Your task to perform on an android device: see tabs open on other devices in the chrome app Image 0: 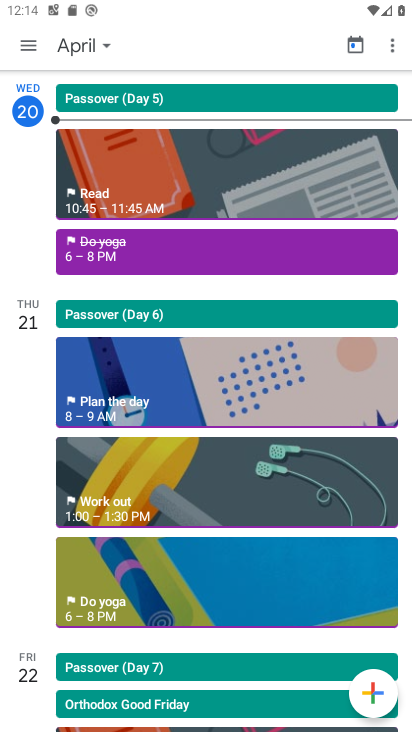
Step 0: press home button
Your task to perform on an android device: see tabs open on other devices in the chrome app Image 1: 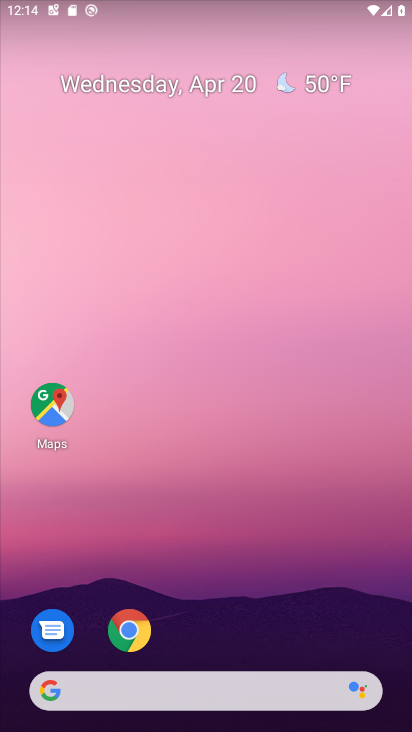
Step 1: drag from (332, 388) to (334, 144)
Your task to perform on an android device: see tabs open on other devices in the chrome app Image 2: 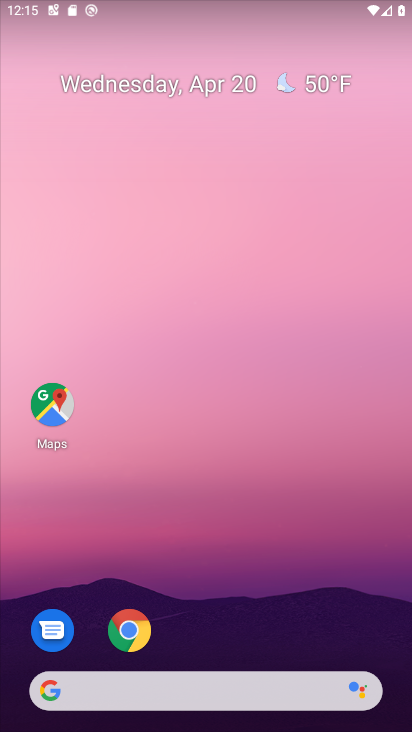
Step 2: drag from (280, 547) to (297, 129)
Your task to perform on an android device: see tabs open on other devices in the chrome app Image 3: 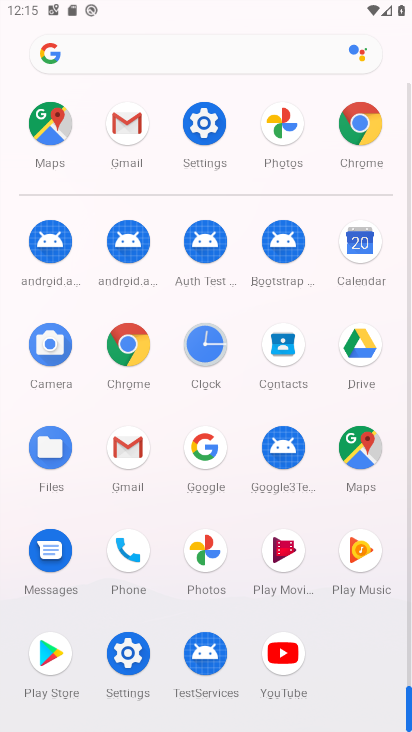
Step 3: click (136, 338)
Your task to perform on an android device: see tabs open on other devices in the chrome app Image 4: 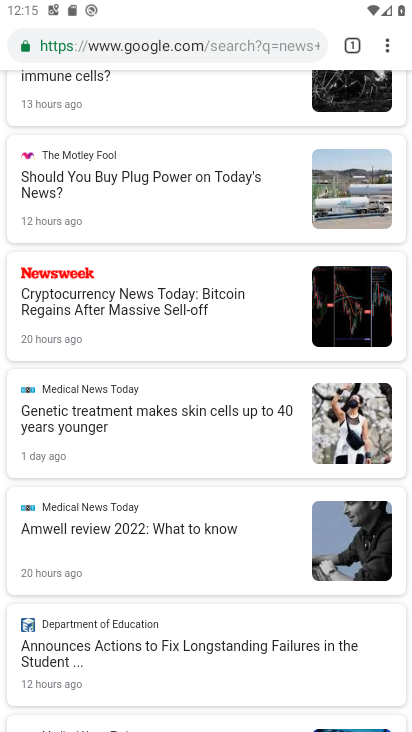
Step 4: click (384, 47)
Your task to perform on an android device: see tabs open on other devices in the chrome app Image 5: 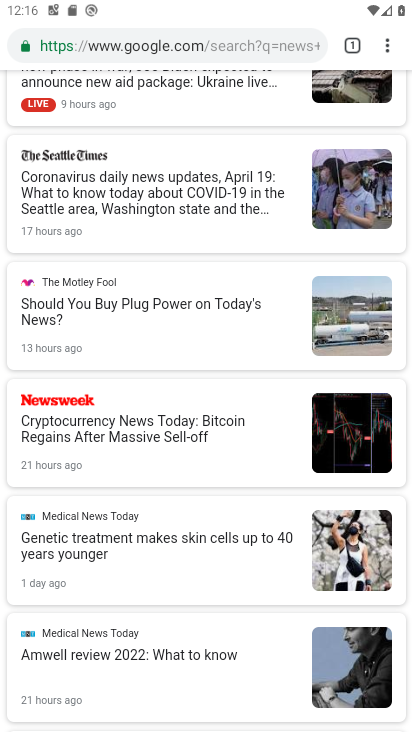
Step 5: task complete